Your task to perform on an android device: delete a single message in the gmail app Image 0: 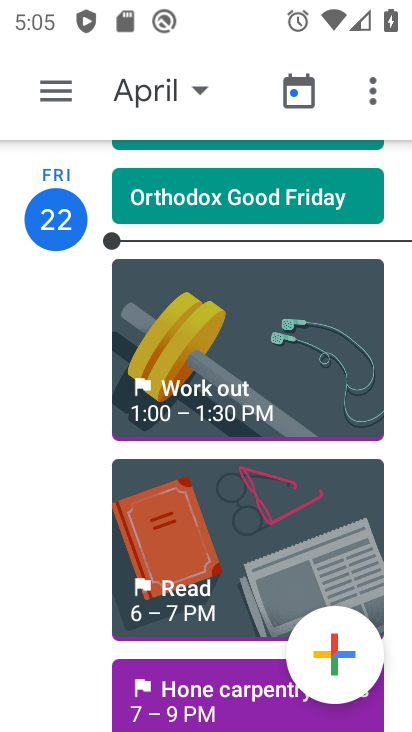
Step 0: press home button
Your task to perform on an android device: delete a single message in the gmail app Image 1: 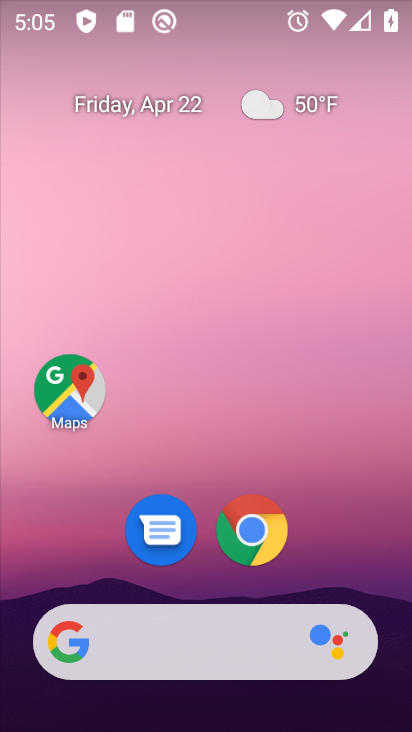
Step 1: drag from (306, 546) to (319, 103)
Your task to perform on an android device: delete a single message in the gmail app Image 2: 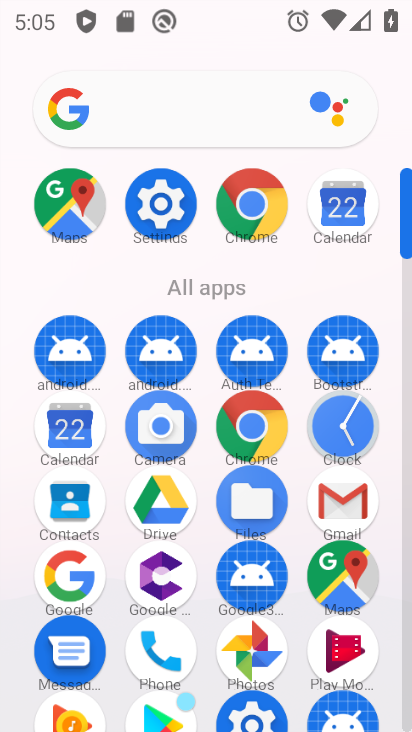
Step 2: click (349, 507)
Your task to perform on an android device: delete a single message in the gmail app Image 3: 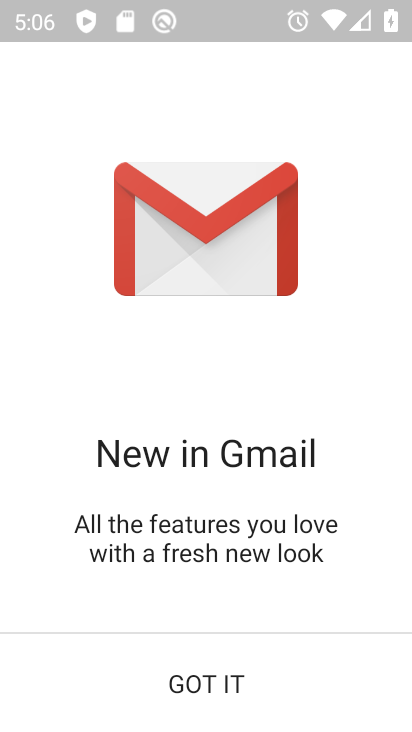
Step 3: click (235, 677)
Your task to perform on an android device: delete a single message in the gmail app Image 4: 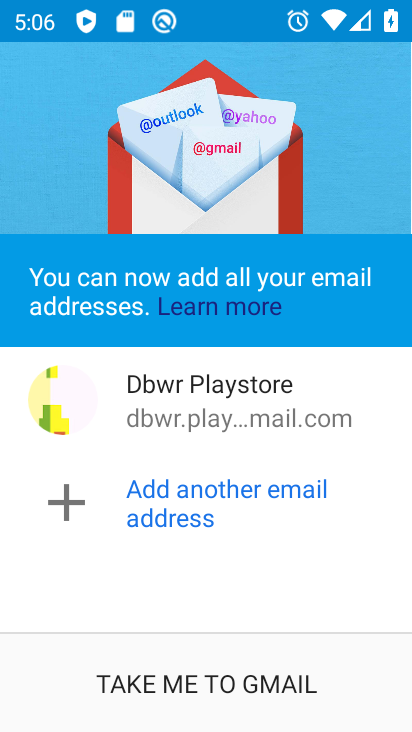
Step 4: click (235, 677)
Your task to perform on an android device: delete a single message in the gmail app Image 5: 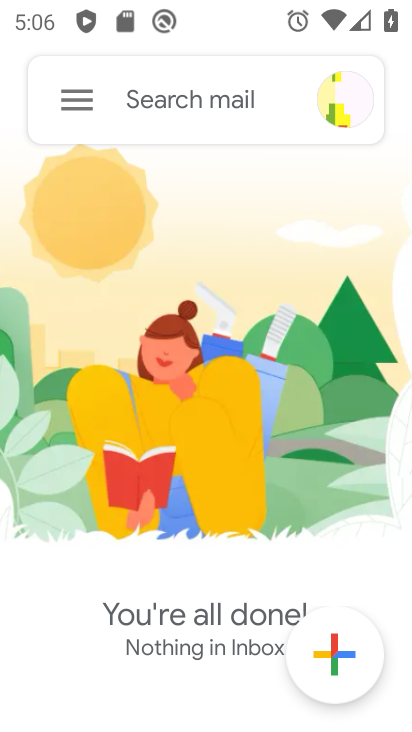
Step 5: task complete